Your task to perform on an android device: Set the phone to "Do not disturb". Image 0: 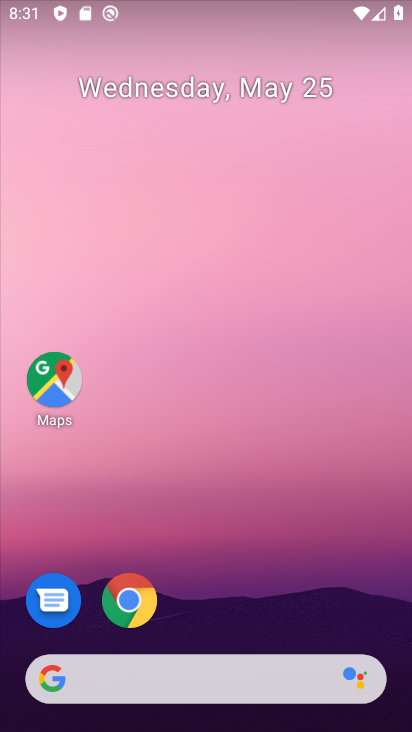
Step 0: drag from (220, 616) to (252, 107)
Your task to perform on an android device: Set the phone to "Do not disturb". Image 1: 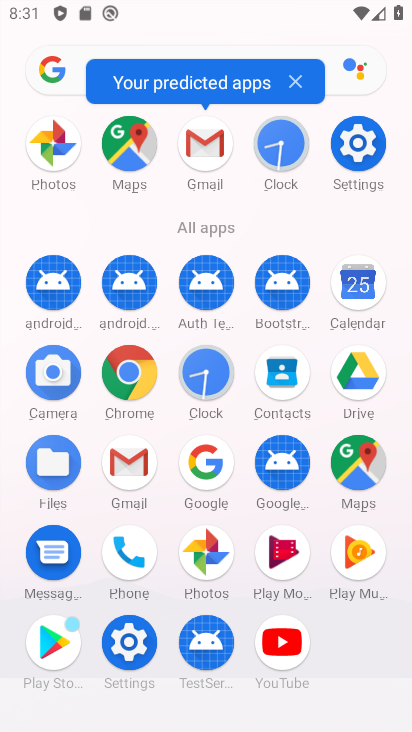
Step 1: click (133, 644)
Your task to perform on an android device: Set the phone to "Do not disturb". Image 2: 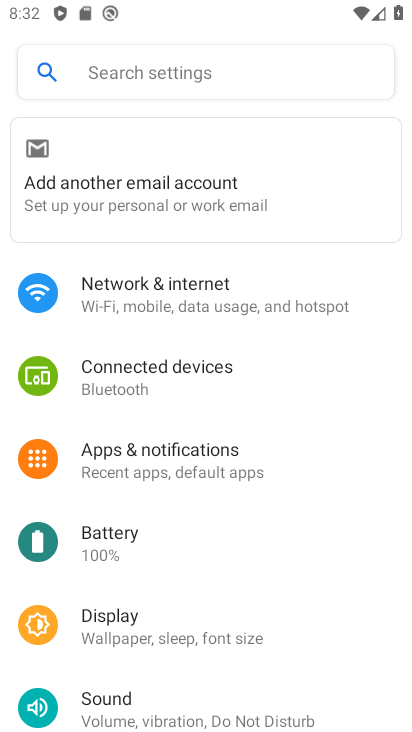
Step 2: drag from (189, 670) to (190, 368)
Your task to perform on an android device: Set the phone to "Do not disturb". Image 3: 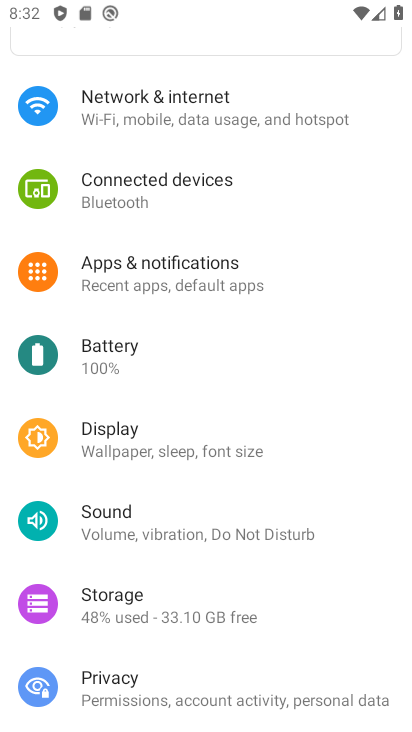
Step 3: click (191, 534)
Your task to perform on an android device: Set the phone to "Do not disturb". Image 4: 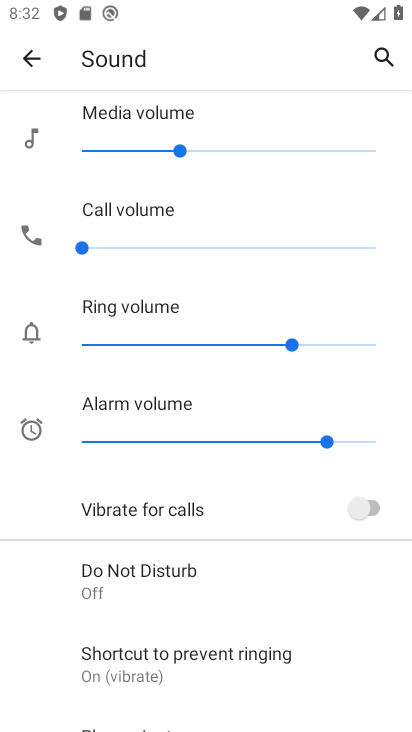
Step 4: click (164, 593)
Your task to perform on an android device: Set the phone to "Do not disturb". Image 5: 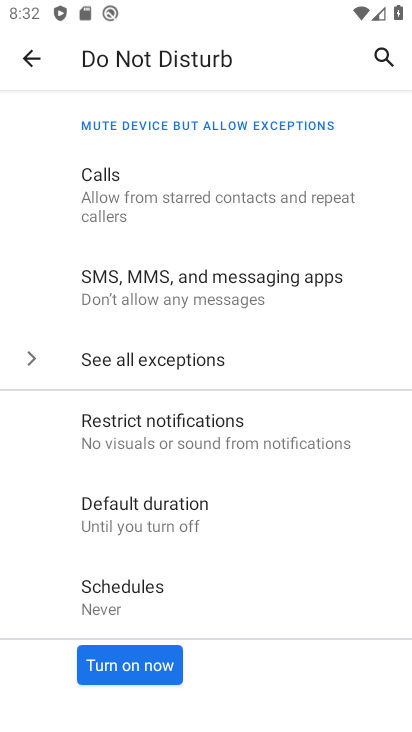
Step 5: click (116, 662)
Your task to perform on an android device: Set the phone to "Do not disturb". Image 6: 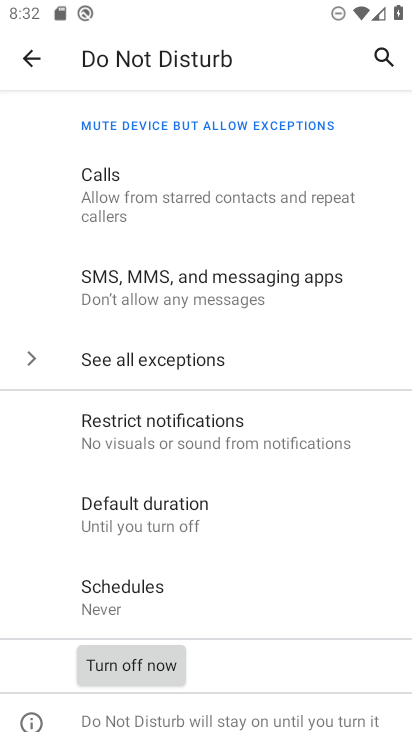
Step 6: task complete